Your task to perform on an android device: Go to Wikipedia Image 0: 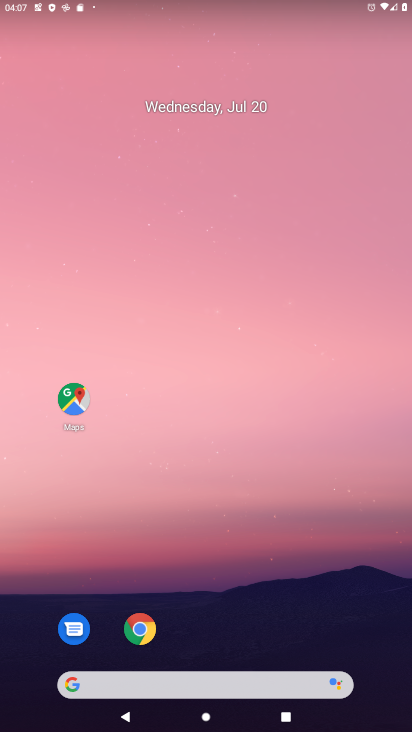
Step 0: click (139, 630)
Your task to perform on an android device: Go to Wikipedia Image 1: 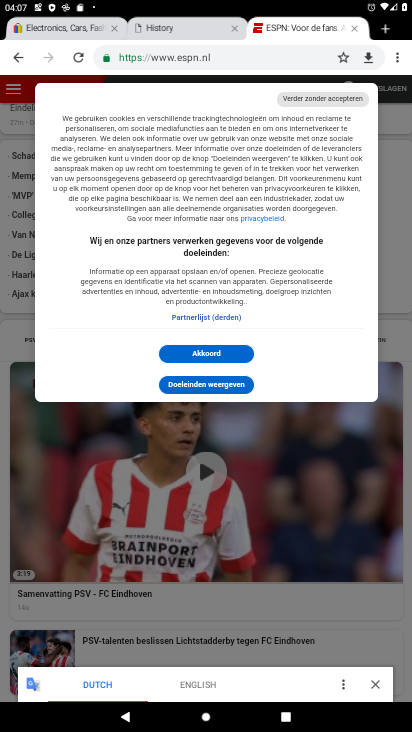
Step 1: click (218, 55)
Your task to perform on an android device: Go to Wikipedia Image 2: 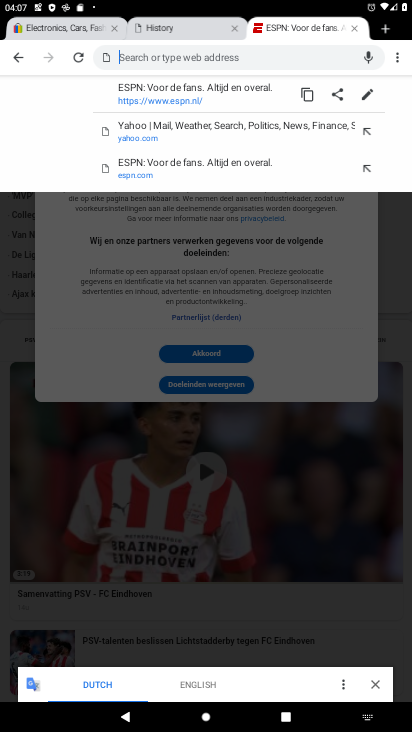
Step 2: type "wikipedia"
Your task to perform on an android device: Go to Wikipedia Image 3: 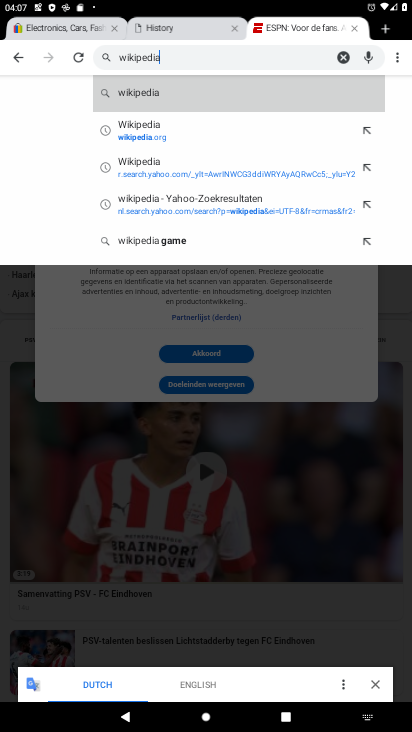
Step 3: click (155, 90)
Your task to perform on an android device: Go to Wikipedia Image 4: 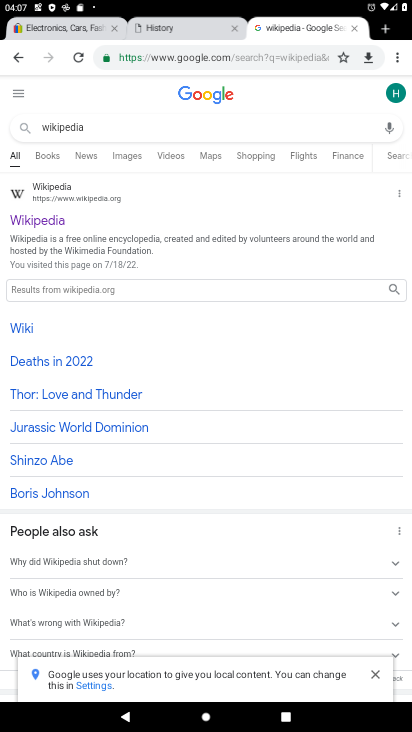
Step 4: click (46, 219)
Your task to perform on an android device: Go to Wikipedia Image 5: 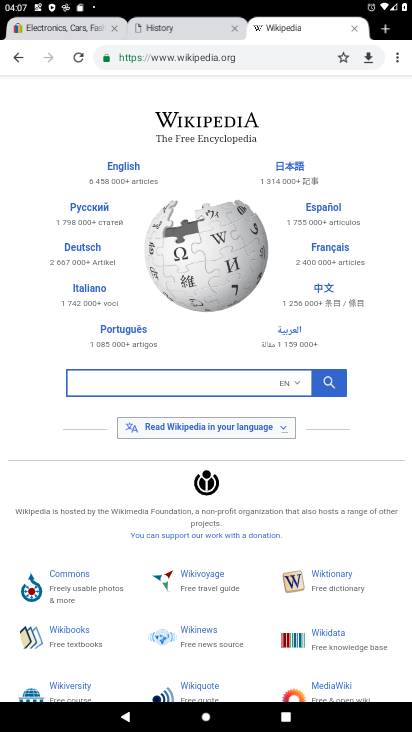
Step 5: task complete